Your task to perform on an android device: turn on javascript in the chrome app Image 0: 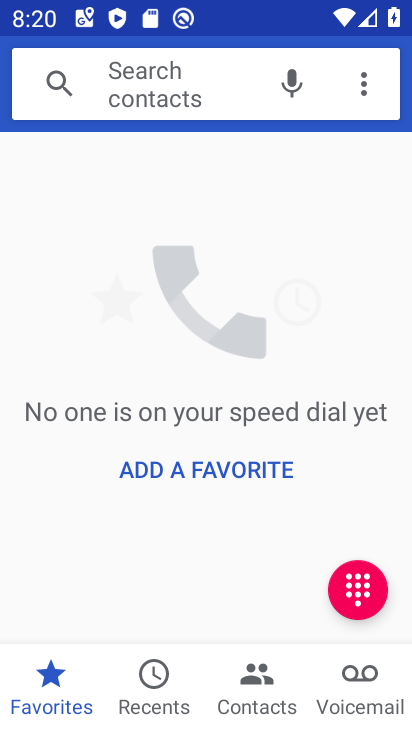
Step 0: press home button
Your task to perform on an android device: turn on javascript in the chrome app Image 1: 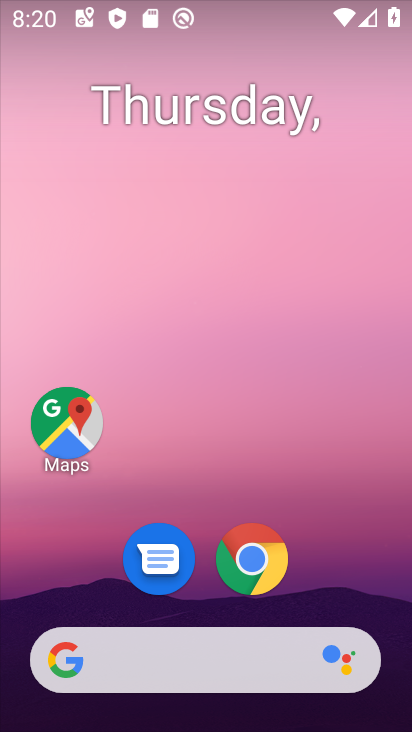
Step 1: click (249, 552)
Your task to perform on an android device: turn on javascript in the chrome app Image 2: 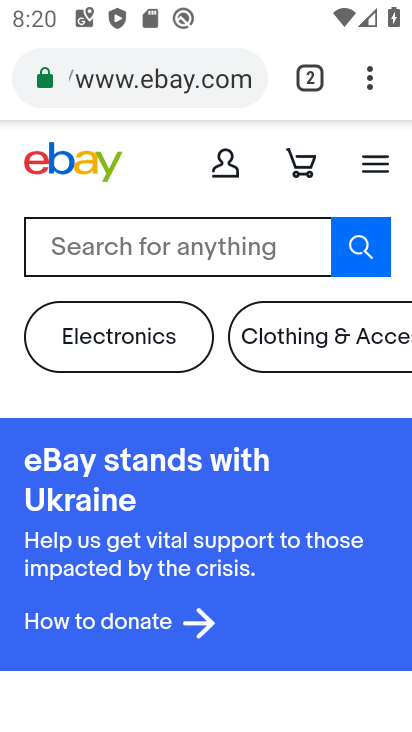
Step 2: click (364, 76)
Your task to perform on an android device: turn on javascript in the chrome app Image 3: 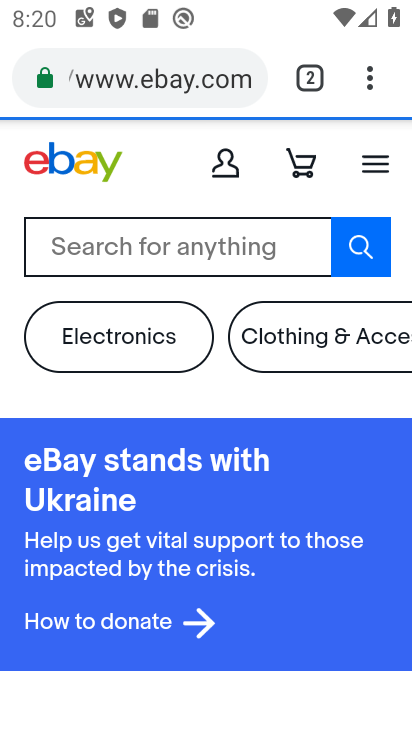
Step 3: drag from (367, 74) to (111, 632)
Your task to perform on an android device: turn on javascript in the chrome app Image 4: 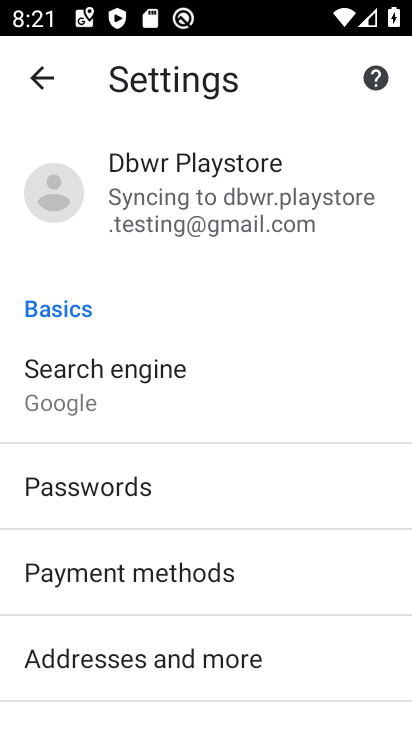
Step 4: drag from (136, 608) to (115, 121)
Your task to perform on an android device: turn on javascript in the chrome app Image 5: 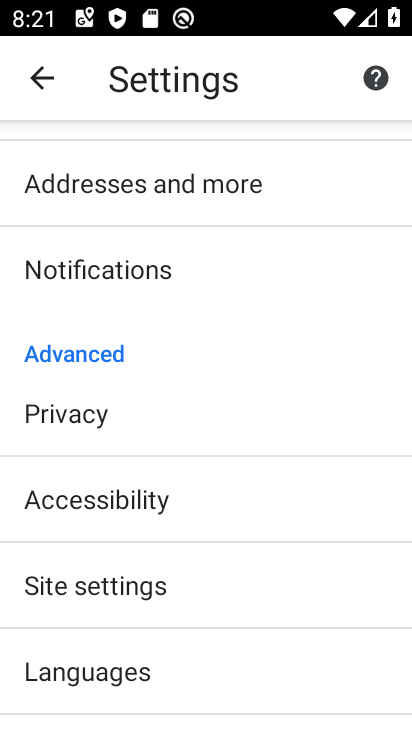
Step 5: click (129, 596)
Your task to perform on an android device: turn on javascript in the chrome app Image 6: 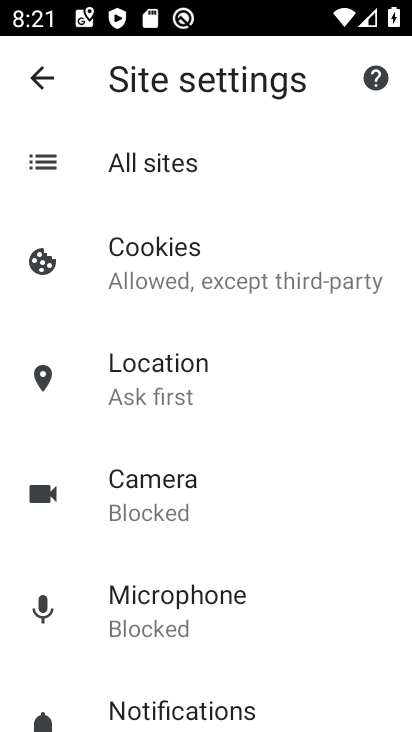
Step 6: drag from (169, 544) to (145, 158)
Your task to perform on an android device: turn on javascript in the chrome app Image 7: 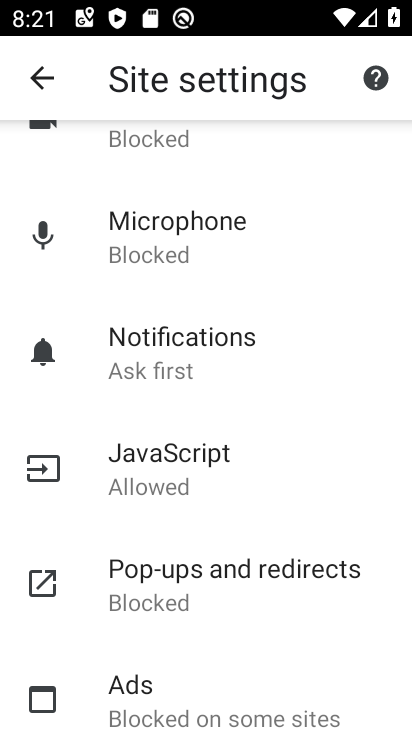
Step 7: click (154, 476)
Your task to perform on an android device: turn on javascript in the chrome app Image 8: 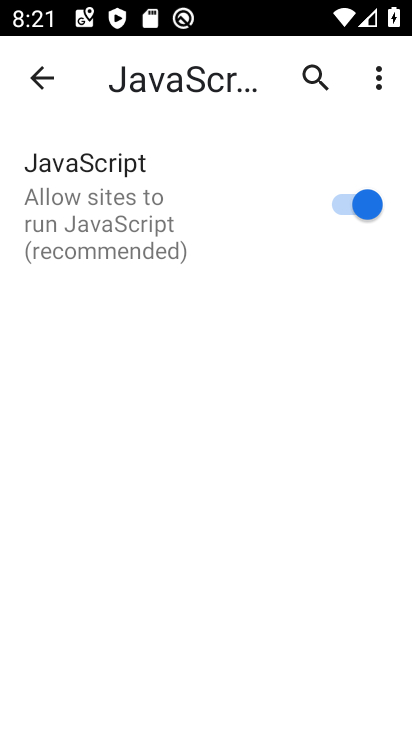
Step 8: task complete